Your task to perform on an android device: set default search engine in the chrome app Image 0: 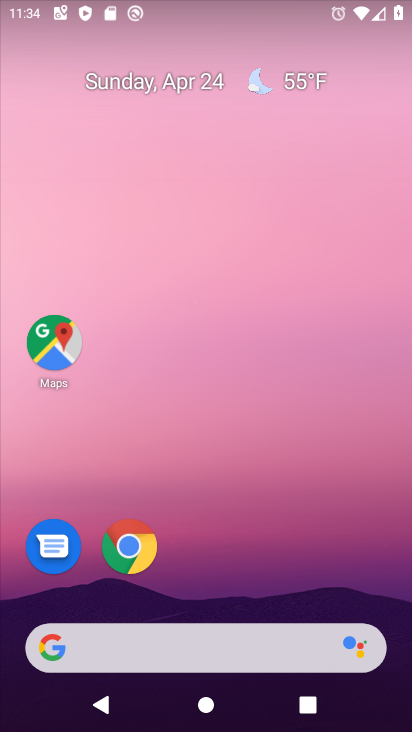
Step 0: click (126, 544)
Your task to perform on an android device: set default search engine in the chrome app Image 1: 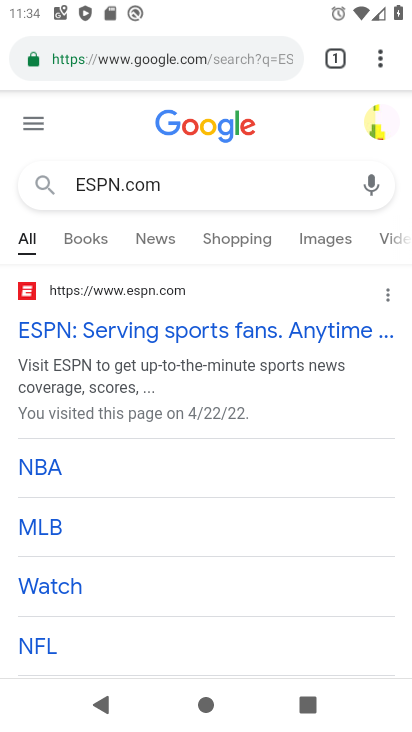
Step 1: click (380, 59)
Your task to perform on an android device: set default search engine in the chrome app Image 2: 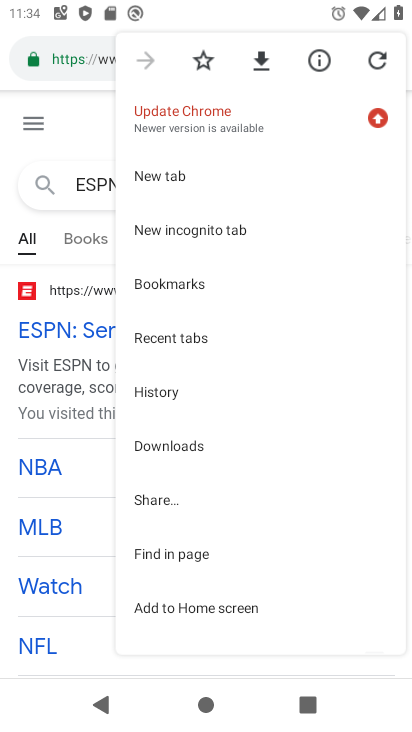
Step 2: drag from (242, 550) to (273, 414)
Your task to perform on an android device: set default search engine in the chrome app Image 3: 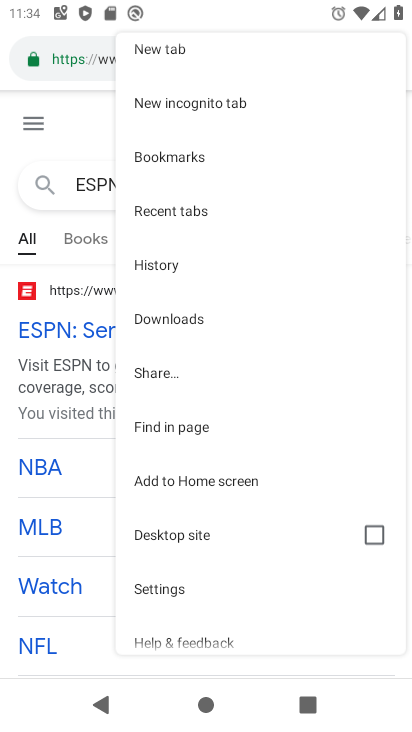
Step 3: drag from (229, 557) to (261, 436)
Your task to perform on an android device: set default search engine in the chrome app Image 4: 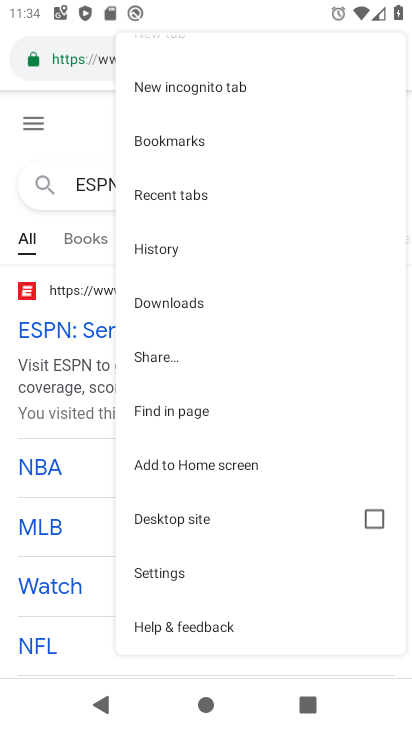
Step 4: click (147, 579)
Your task to perform on an android device: set default search engine in the chrome app Image 5: 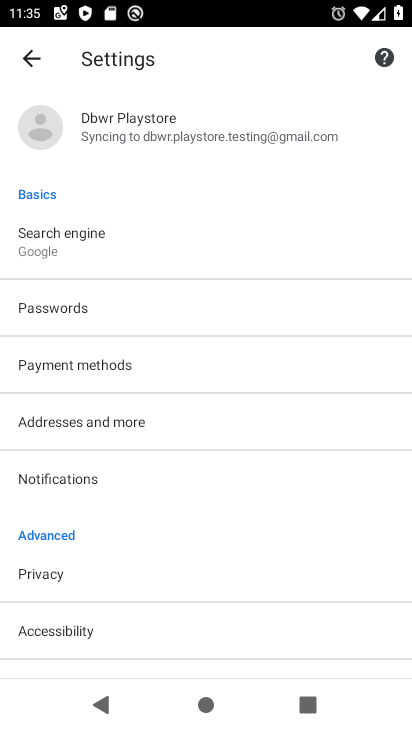
Step 5: click (58, 235)
Your task to perform on an android device: set default search engine in the chrome app Image 6: 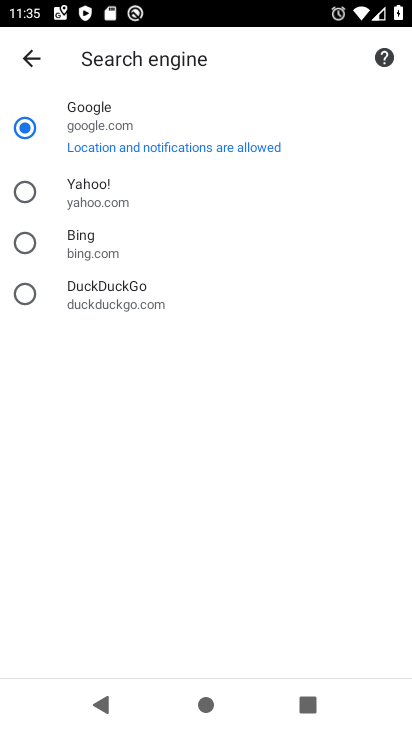
Step 6: click (83, 201)
Your task to perform on an android device: set default search engine in the chrome app Image 7: 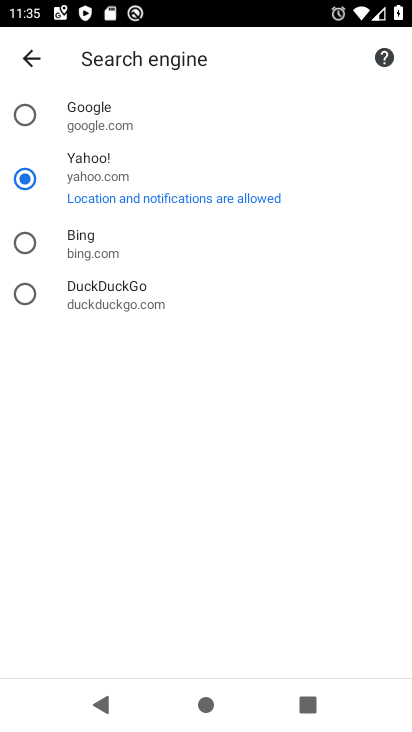
Step 7: task complete